Your task to perform on an android device: change keyboard looks Image 0: 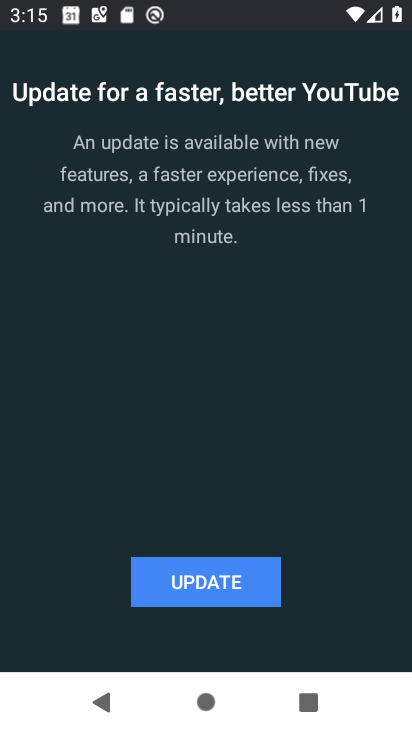
Step 0: press home button
Your task to perform on an android device: change keyboard looks Image 1: 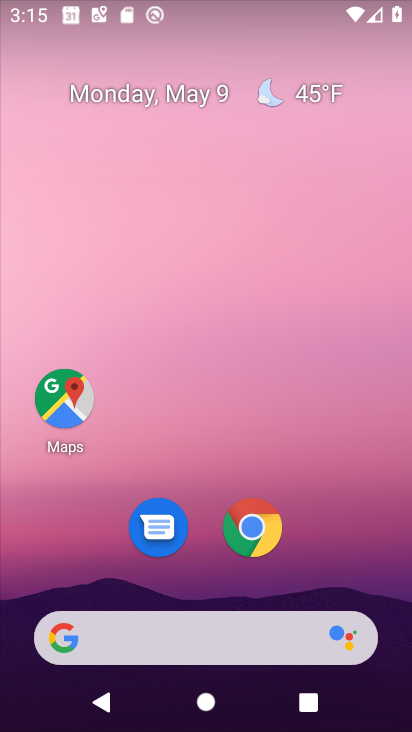
Step 1: drag from (300, 665) to (294, 311)
Your task to perform on an android device: change keyboard looks Image 2: 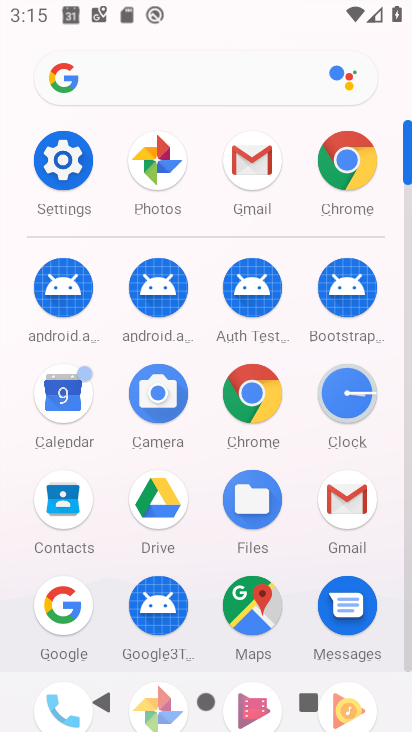
Step 2: drag from (255, 457) to (272, 271)
Your task to perform on an android device: change keyboard looks Image 3: 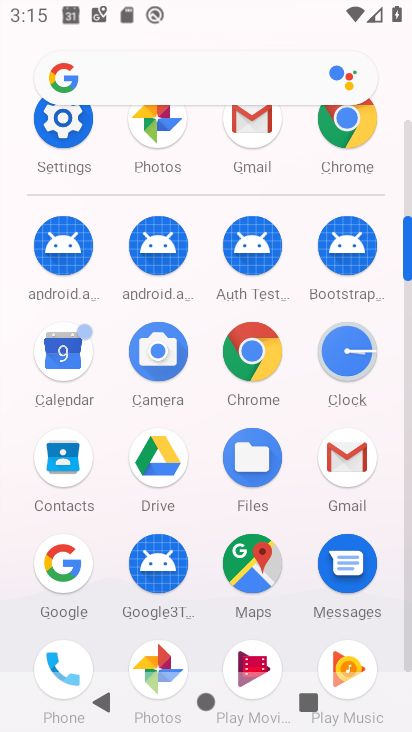
Step 3: click (49, 136)
Your task to perform on an android device: change keyboard looks Image 4: 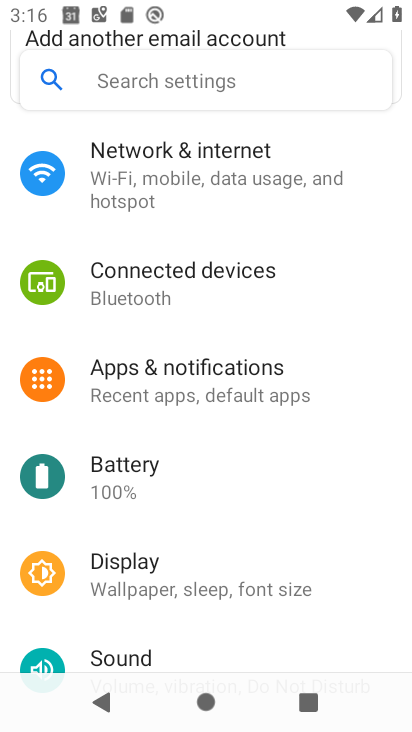
Step 4: drag from (220, 540) to (232, 325)
Your task to perform on an android device: change keyboard looks Image 5: 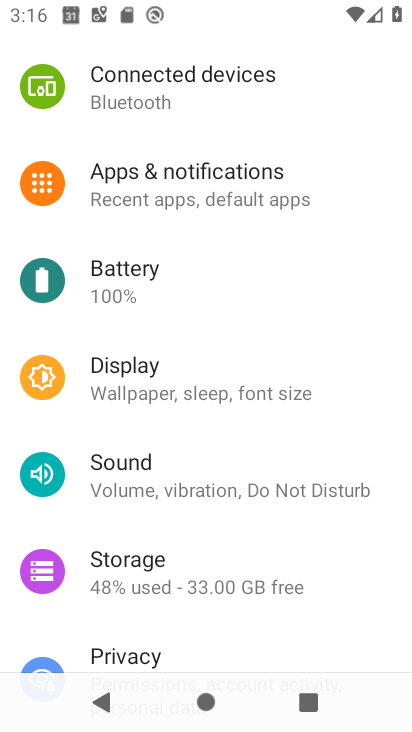
Step 5: drag from (241, 527) to (242, 332)
Your task to perform on an android device: change keyboard looks Image 6: 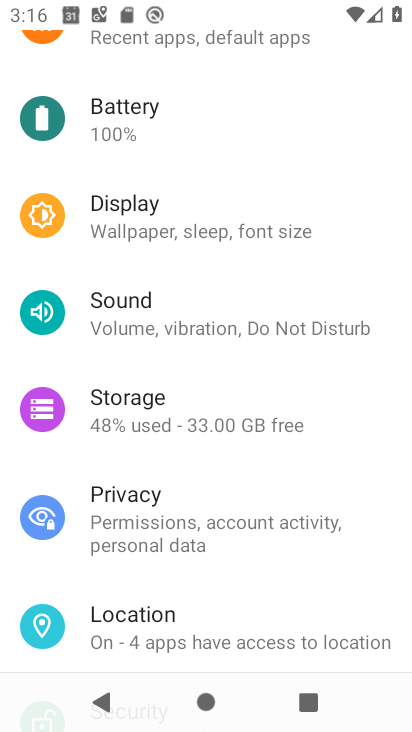
Step 6: drag from (245, 491) to (240, 235)
Your task to perform on an android device: change keyboard looks Image 7: 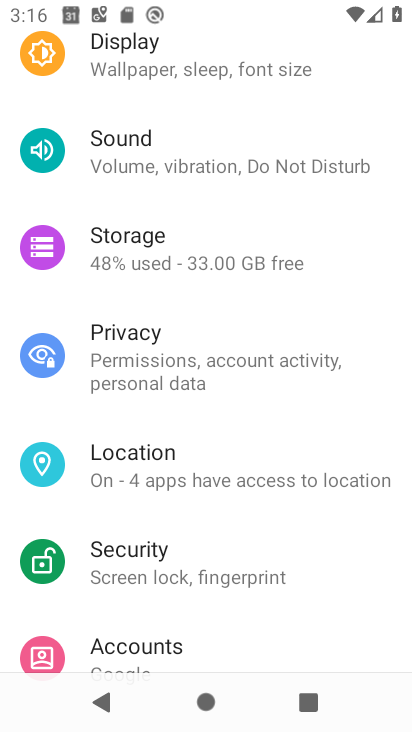
Step 7: drag from (244, 540) to (240, 392)
Your task to perform on an android device: change keyboard looks Image 8: 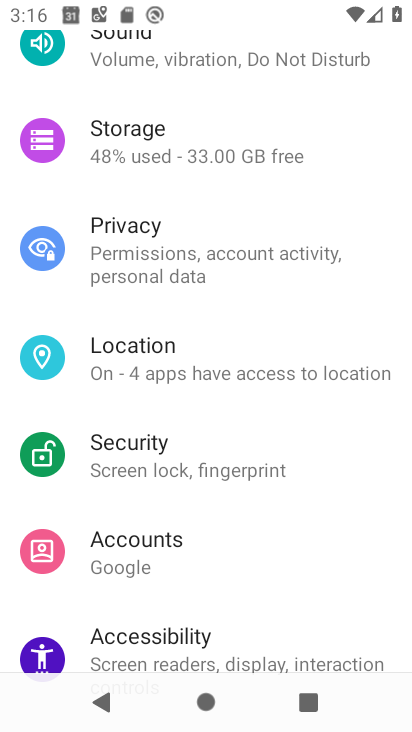
Step 8: drag from (246, 522) to (245, 296)
Your task to perform on an android device: change keyboard looks Image 9: 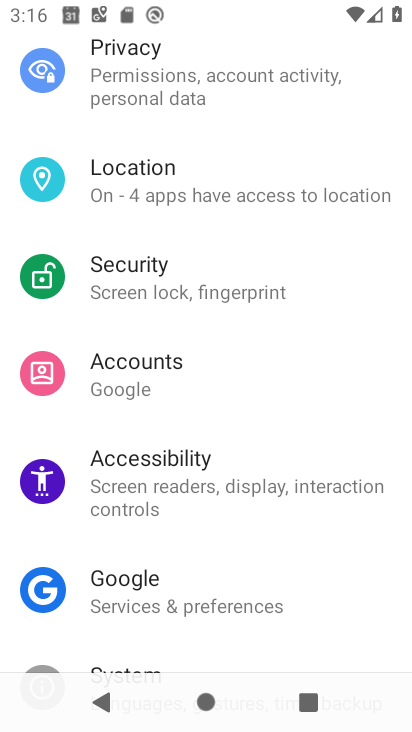
Step 9: drag from (249, 566) to (266, 0)
Your task to perform on an android device: change keyboard looks Image 10: 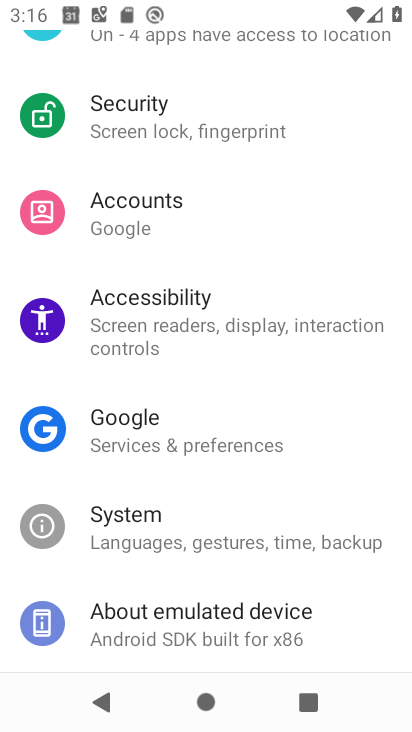
Step 10: click (197, 538)
Your task to perform on an android device: change keyboard looks Image 11: 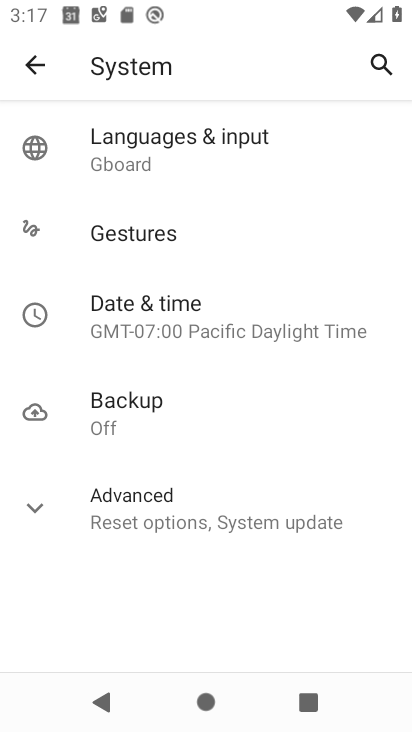
Step 11: click (270, 142)
Your task to perform on an android device: change keyboard looks Image 12: 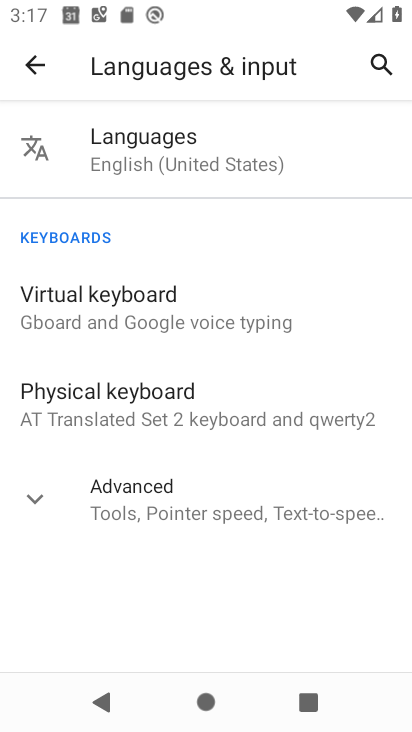
Step 12: click (222, 323)
Your task to perform on an android device: change keyboard looks Image 13: 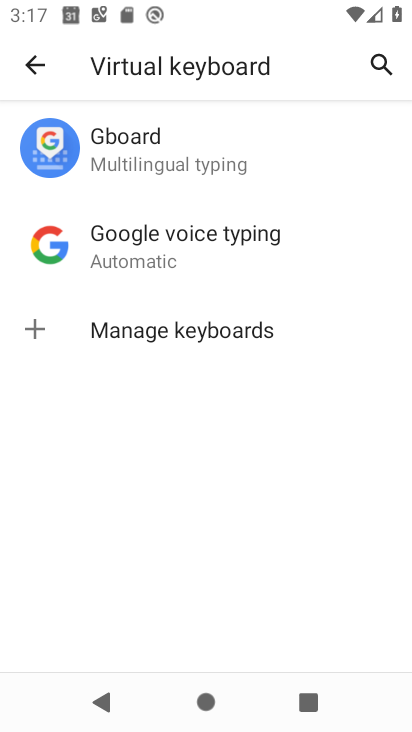
Step 13: click (239, 168)
Your task to perform on an android device: change keyboard looks Image 14: 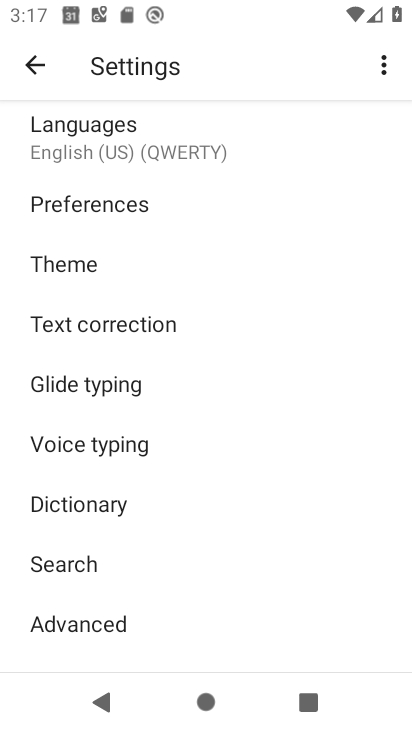
Step 14: click (185, 271)
Your task to perform on an android device: change keyboard looks Image 15: 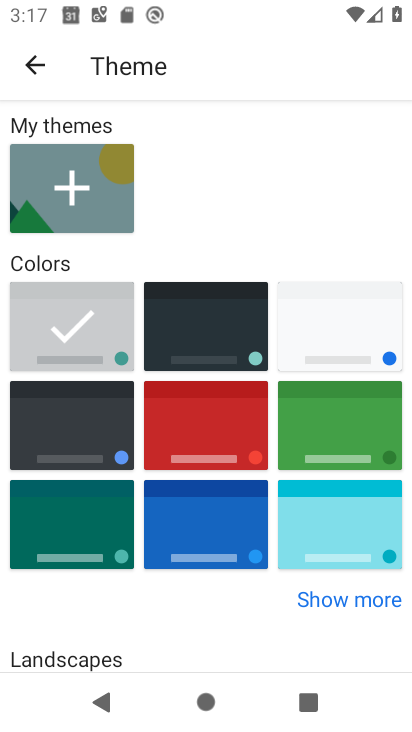
Step 15: click (207, 322)
Your task to perform on an android device: change keyboard looks Image 16: 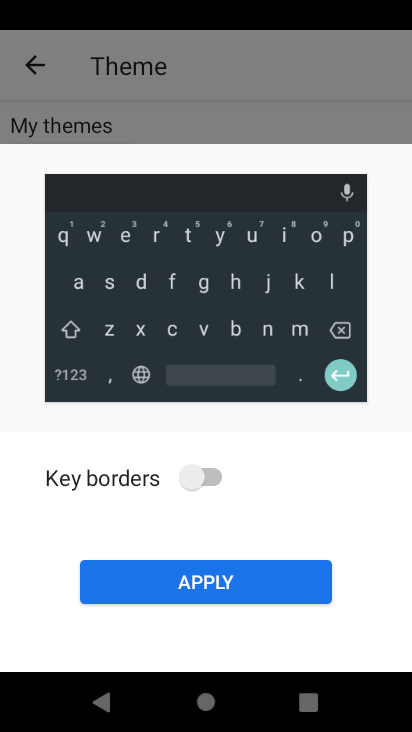
Step 16: click (235, 584)
Your task to perform on an android device: change keyboard looks Image 17: 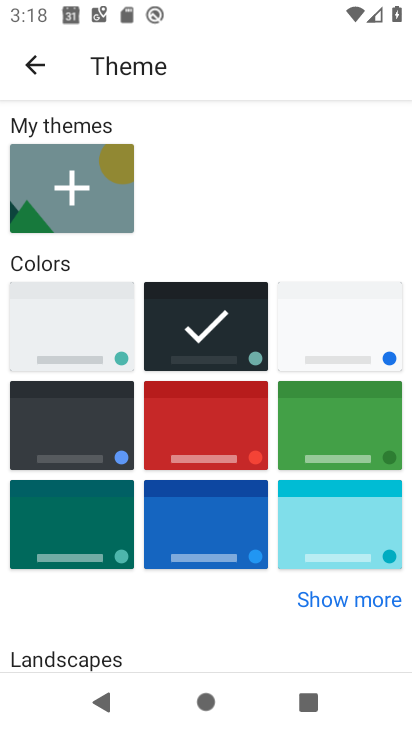
Step 17: task complete